Your task to perform on an android device: Clear the shopping cart on target.com. Add macbook air to the cart on target.com, then select checkout. Image 0: 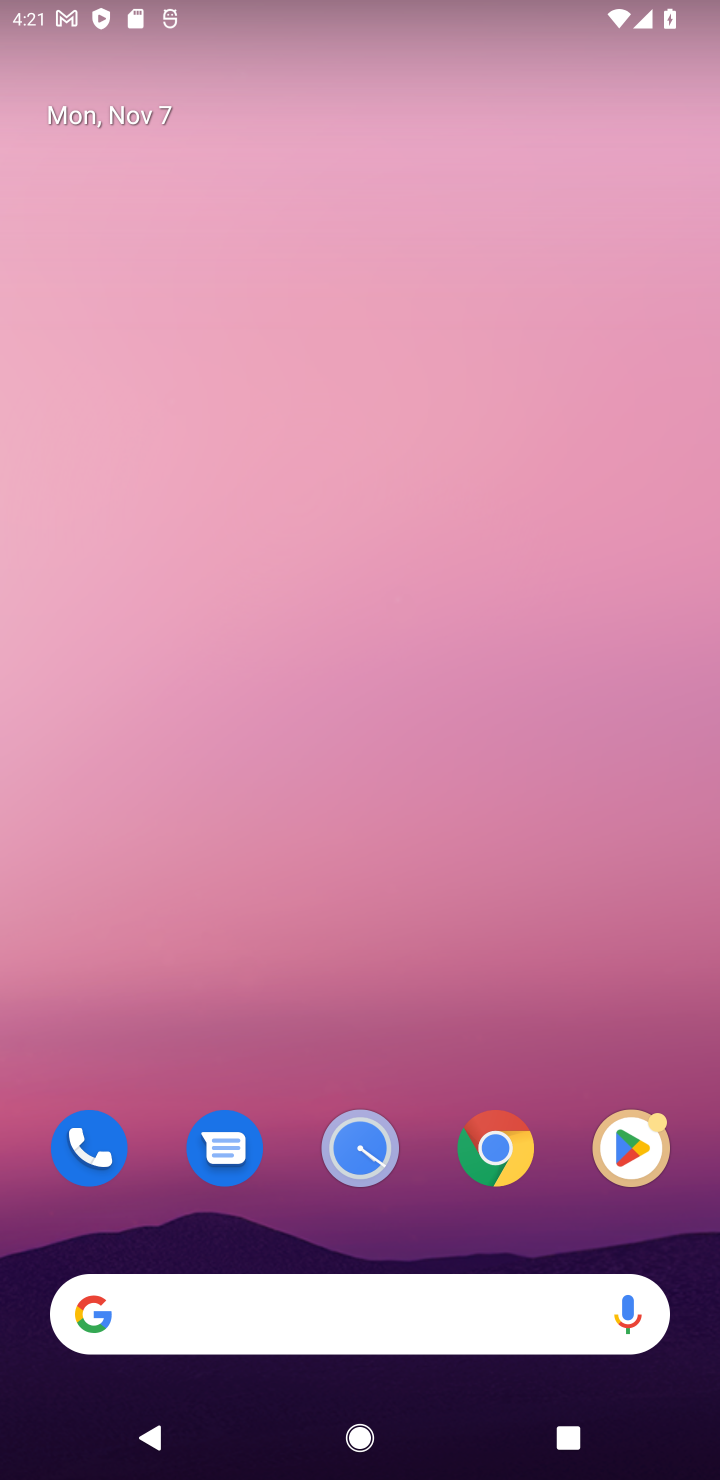
Step 0: click (496, 1151)
Your task to perform on an android device: Clear the shopping cart on target.com. Add macbook air to the cart on target.com, then select checkout. Image 1: 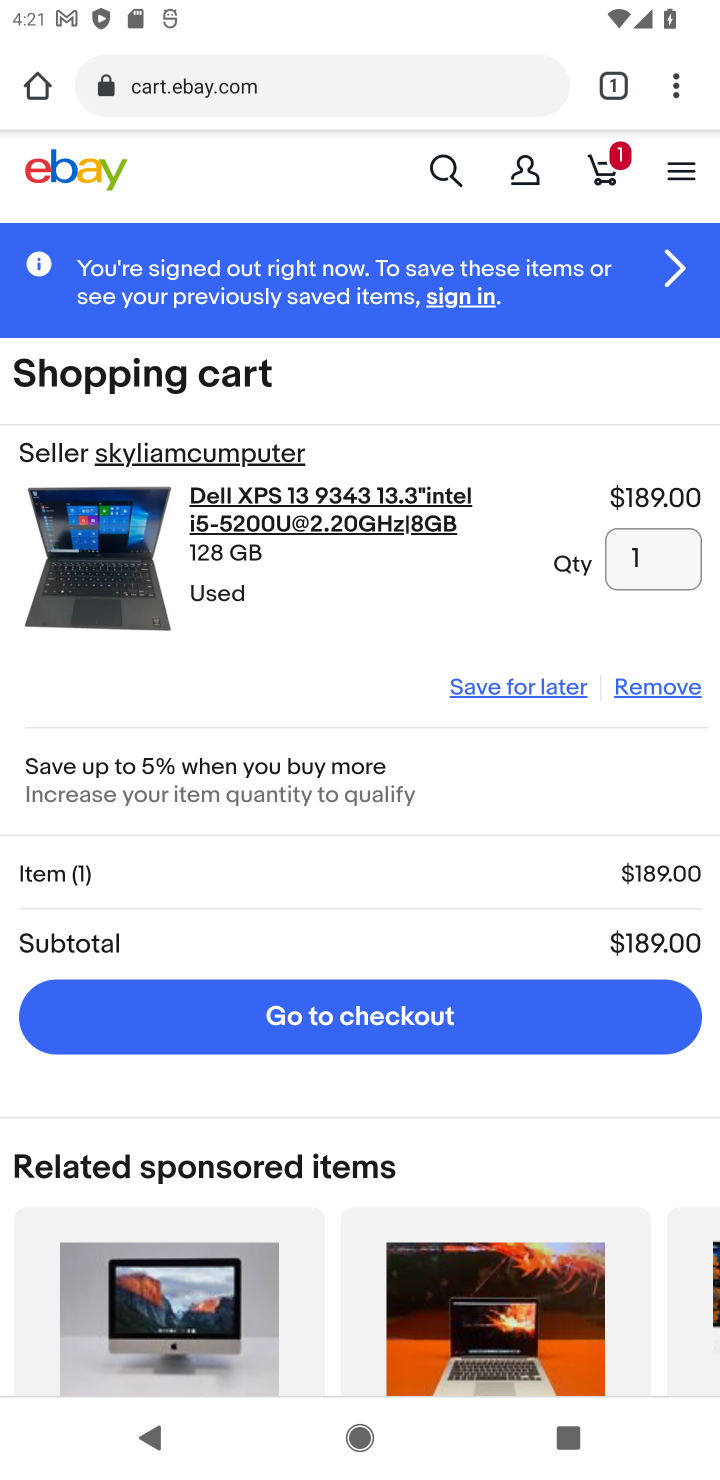
Step 1: click (366, 63)
Your task to perform on an android device: Clear the shopping cart on target.com. Add macbook air to the cart on target.com, then select checkout. Image 2: 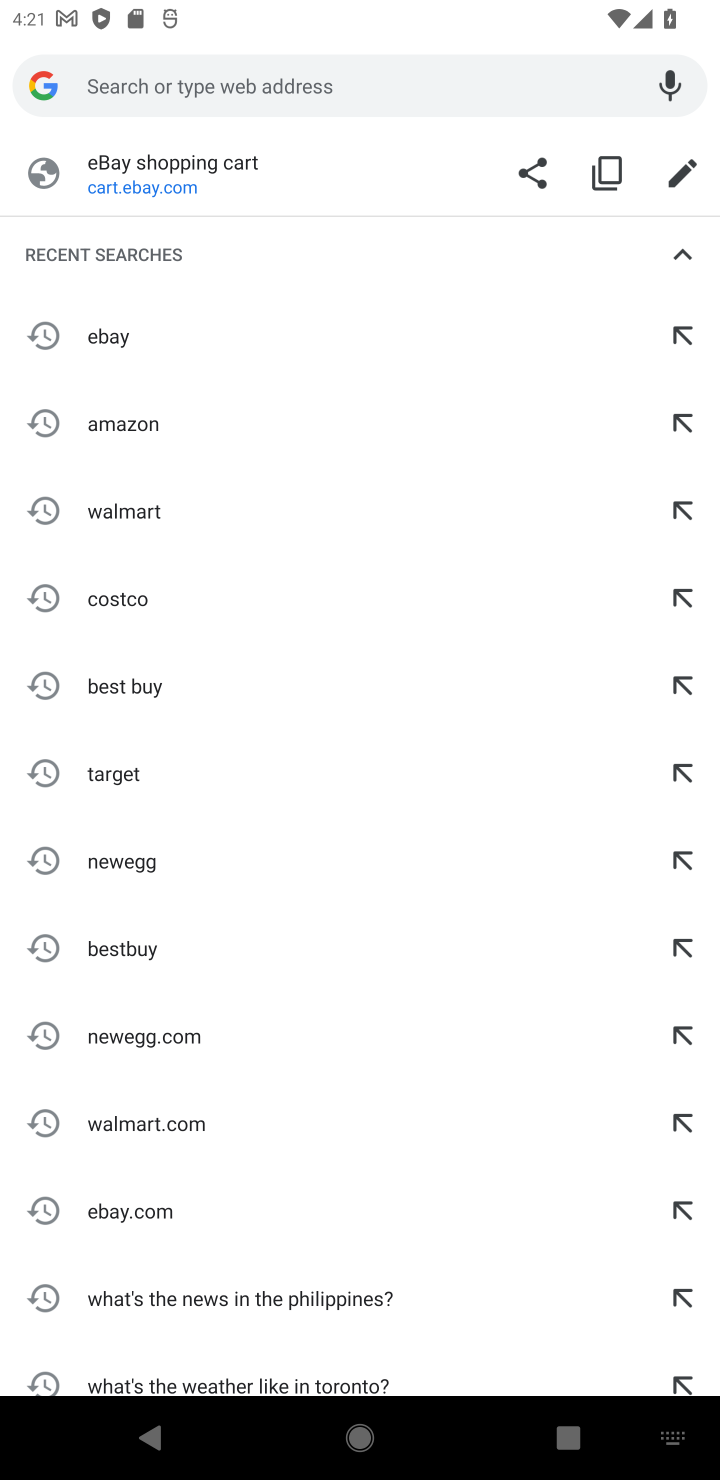
Step 2: type "target.com"
Your task to perform on an android device: Clear the shopping cart on target.com. Add macbook air to the cart on target.com, then select checkout. Image 3: 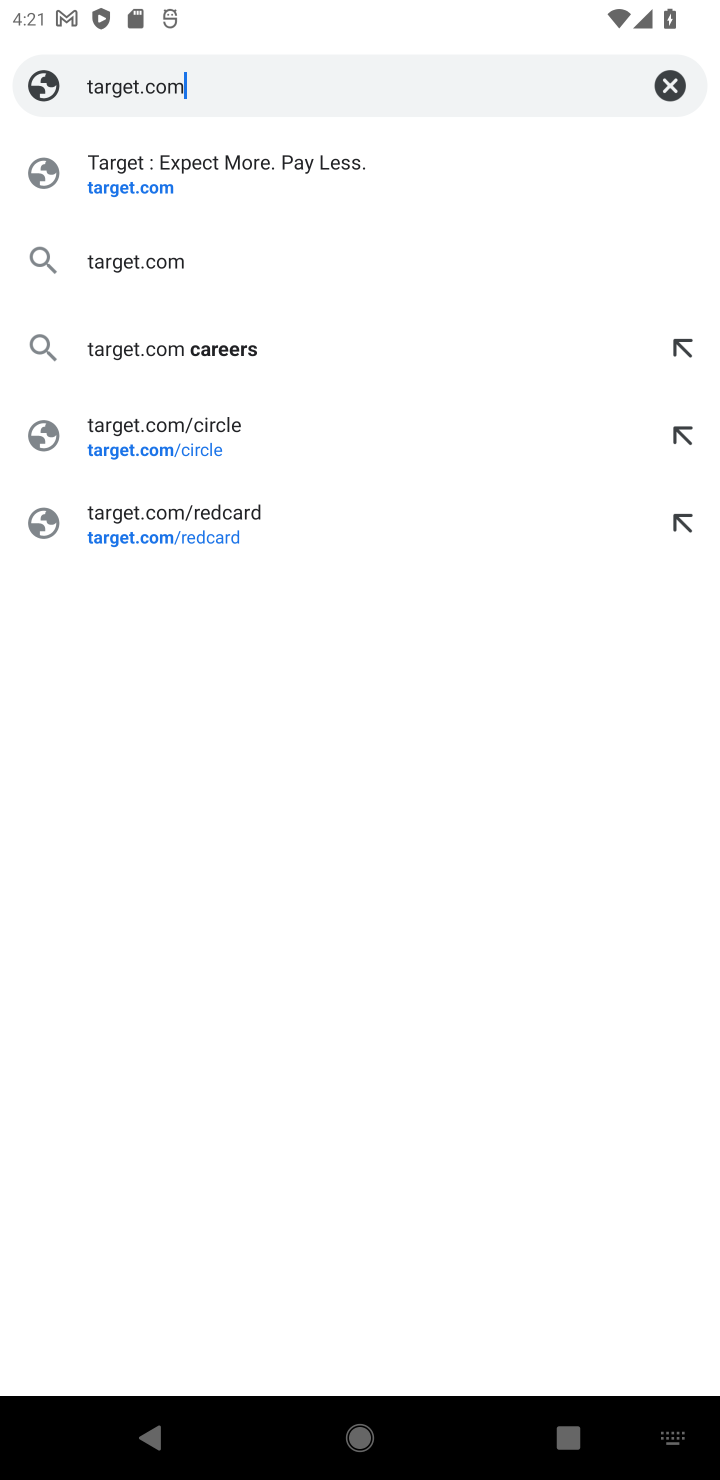
Step 3: click (154, 174)
Your task to perform on an android device: Clear the shopping cart on target.com. Add macbook air to the cart on target.com, then select checkout. Image 4: 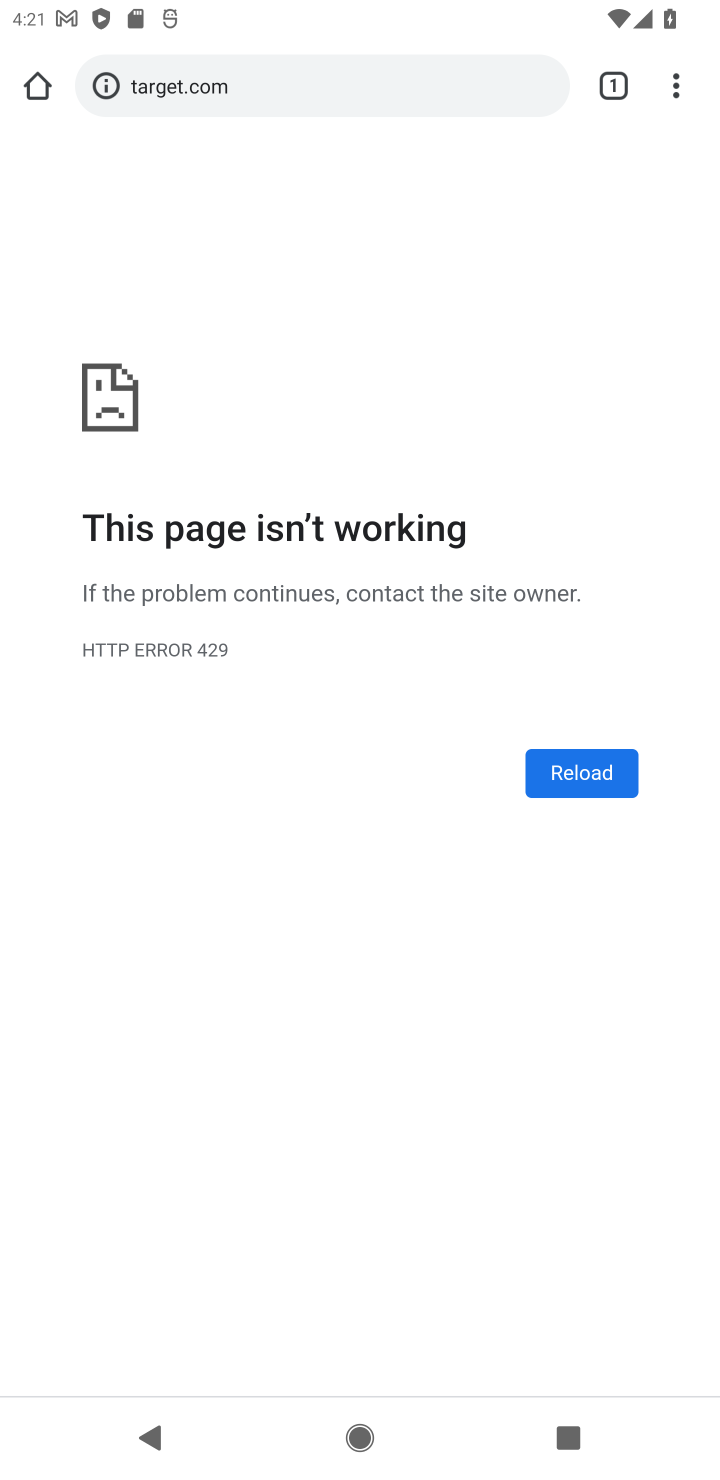
Step 4: click (594, 776)
Your task to perform on an android device: Clear the shopping cart on target.com. Add macbook air to the cart on target.com, then select checkout. Image 5: 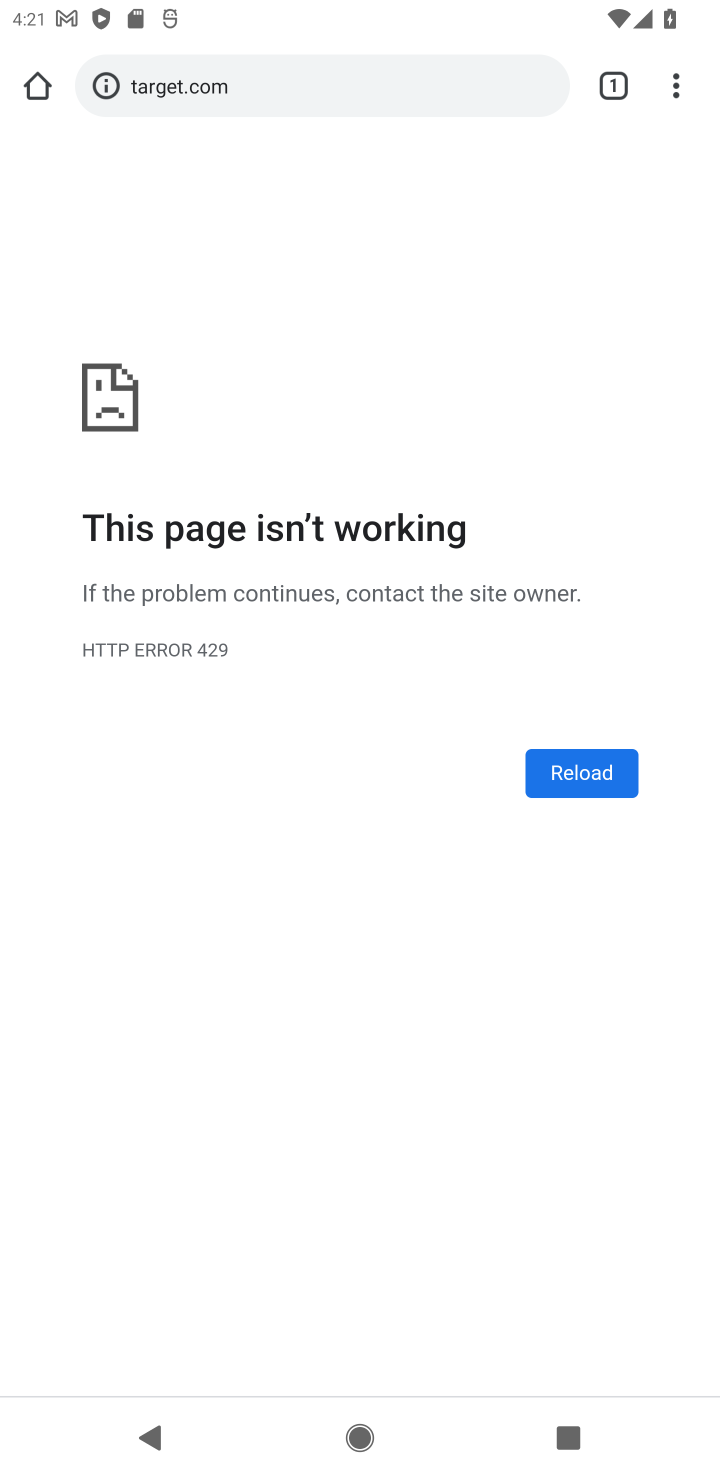
Step 5: click (594, 776)
Your task to perform on an android device: Clear the shopping cart on target.com. Add macbook air to the cart on target.com, then select checkout. Image 6: 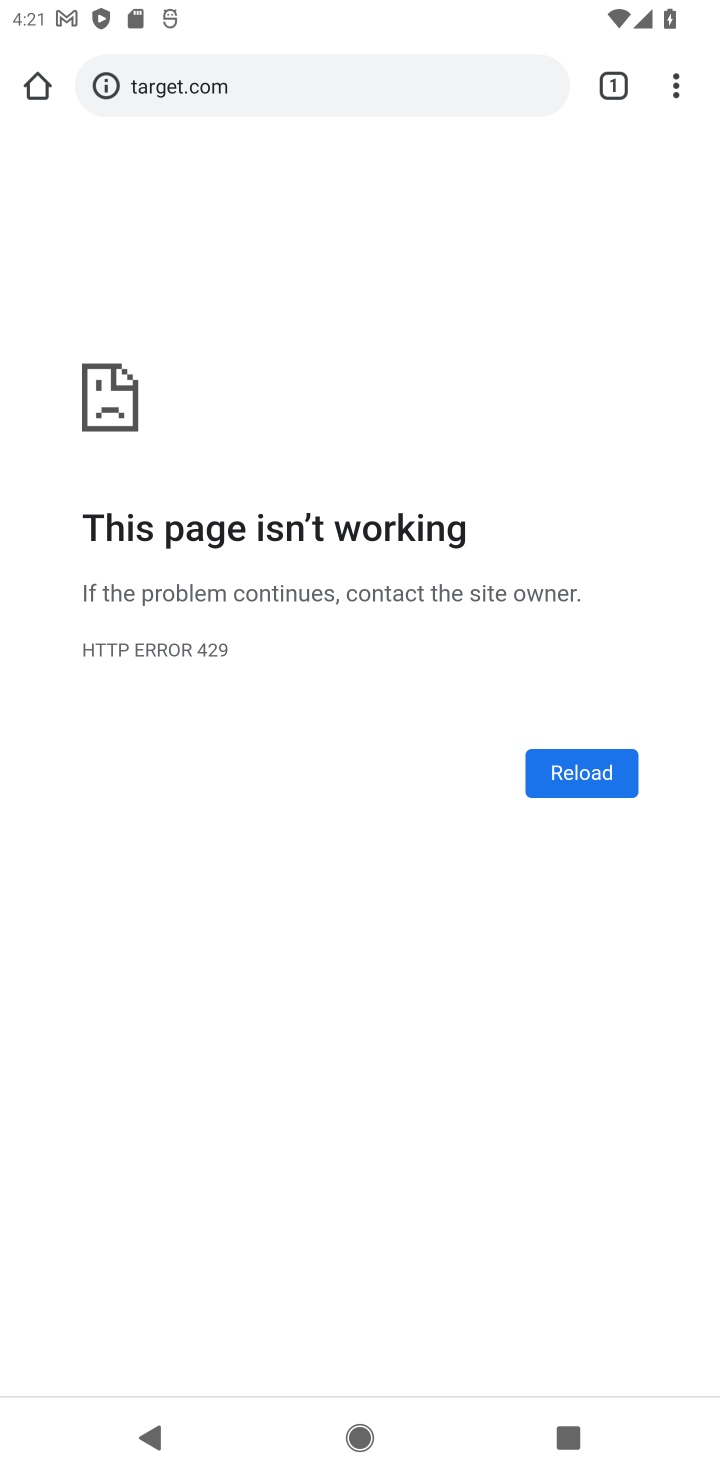
Step 6: task complete